Your task to perform on an android device: turn on notifications settings in the gmail app Image 0: 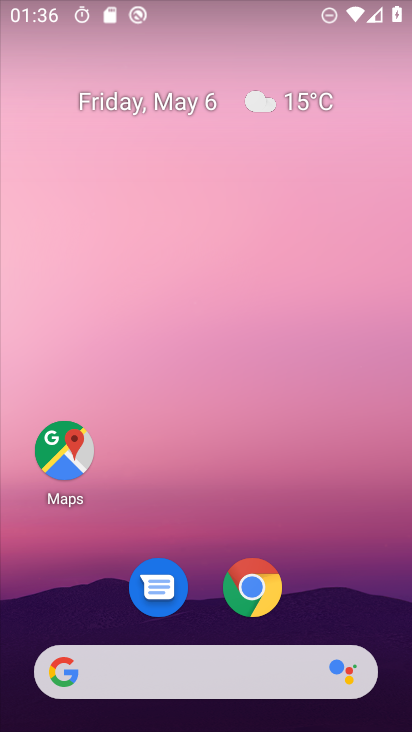
Step 0: drag from (395, 523) to (411, 193)
Your task to perform on an android device: turn on notifications settings in the gmail app Image 1: 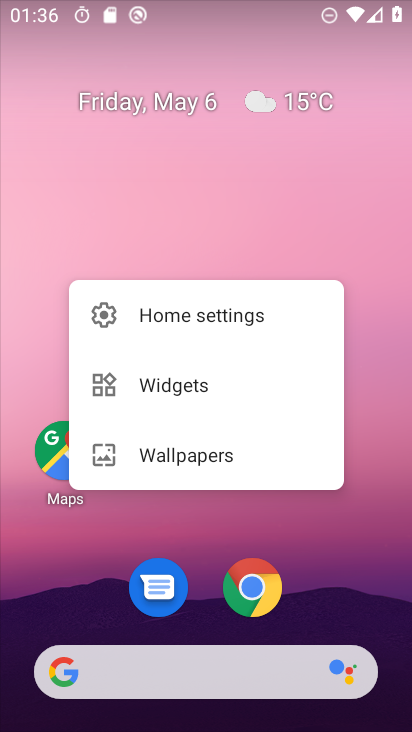
Step 1: click (394, 601)
Your task to perform on an android device: turn on notifications settings in the gmail app Image 2: 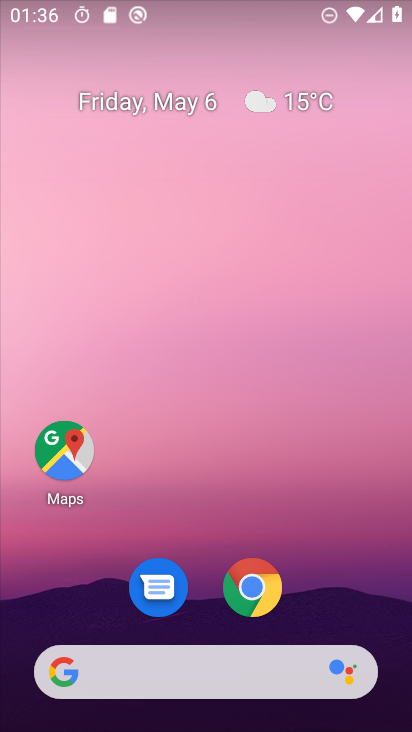
Step 2: drag from (401, 681) to (404, 286)
Your task to perform on an android device: turn on notifications settings in the gmail app Image 3: 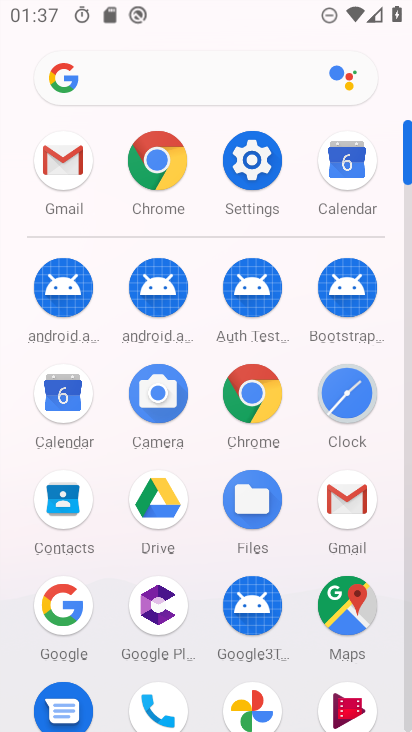
Step 3: click (336, 518)
Your task to perform on an android device: turn on notifications settings in the gmail app Image 4: 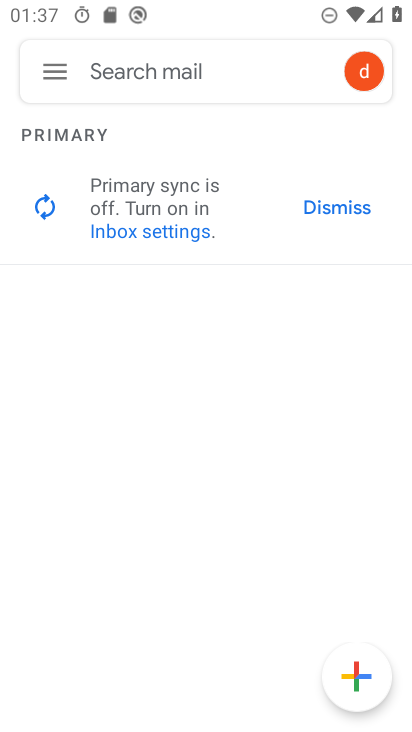
Step 4: click (44, 68)
Your task to perform on an android device: turn on notifications settings in the gmail app Image 5: 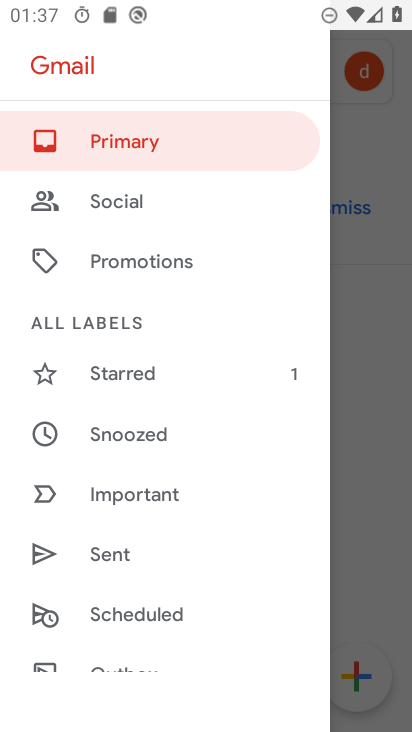
Step 5: drag from (254, 641) to (265, 370)
Your task to perform on an android device: turn on notifications settings in the gmail app Image 6: 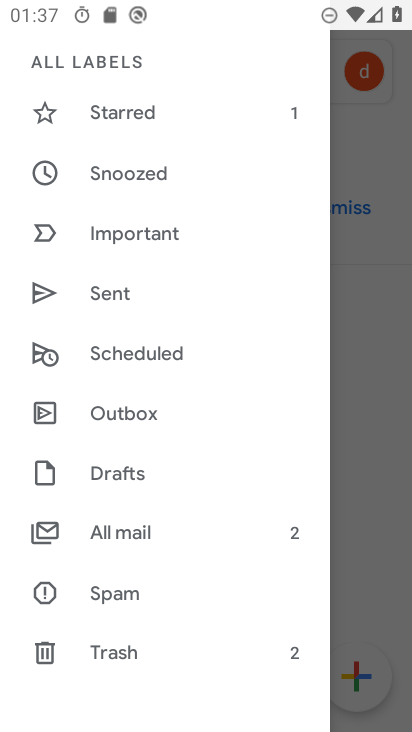
Step 6: drag from (259, 241) to (258, 659)
Your task to perform on an android device: turn on notifications settings in the gmail app Image 7: 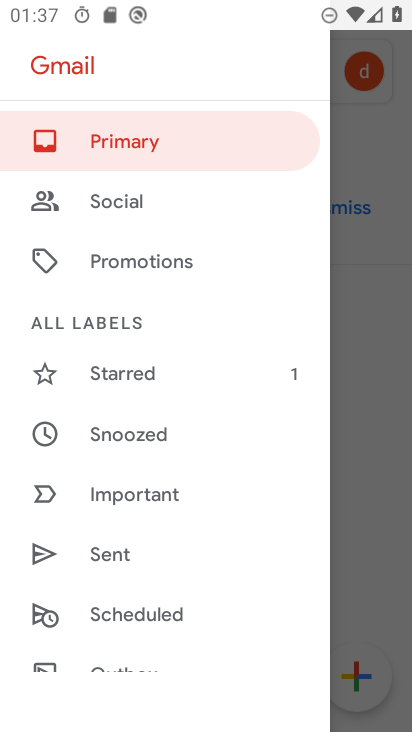
Step 7: drag from (215, 601) to (254, 353)
Your task to perform on an android device: turn on notifications settings in the gmail app Image 8: 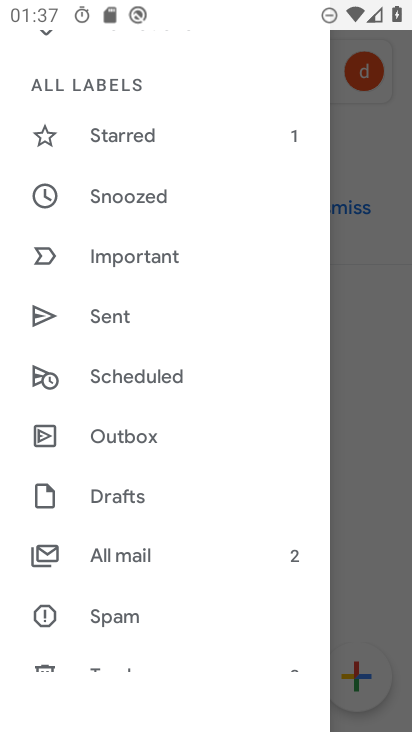
Step 8: drag from (264, 487) to (275, 379)
Your task to perform on an android device: turn on notifications settings in the gmail app Image 9: 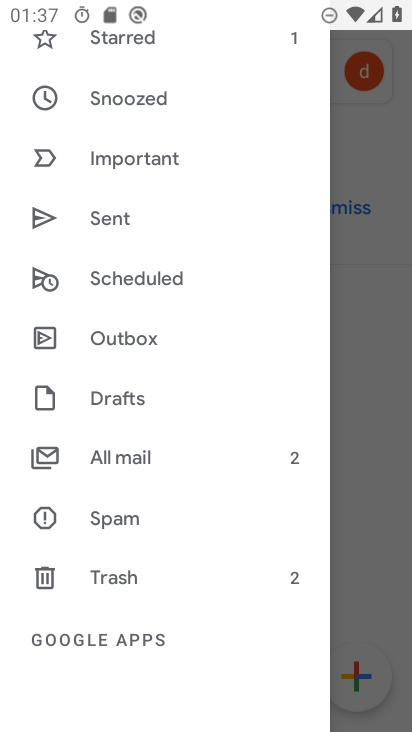
Step 9: drag from (200, 562) to (232, 303)
Your task to perform on an android device: turn on notifications settings in the gmail app Image 10: 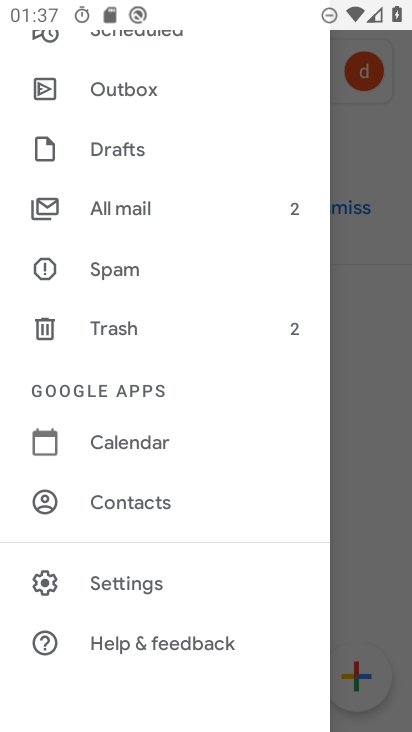
Step 10: click (119, 572)
Your task to perform on an android device: turn on notifications settings in the gmail app Image 11: 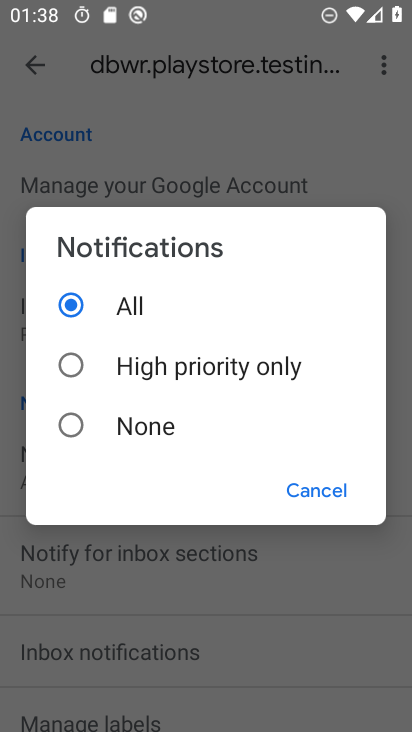
Step 11: click (310, 488)
Your task to perform on an android device: turn on notifications settings in the gmail app Image 12: 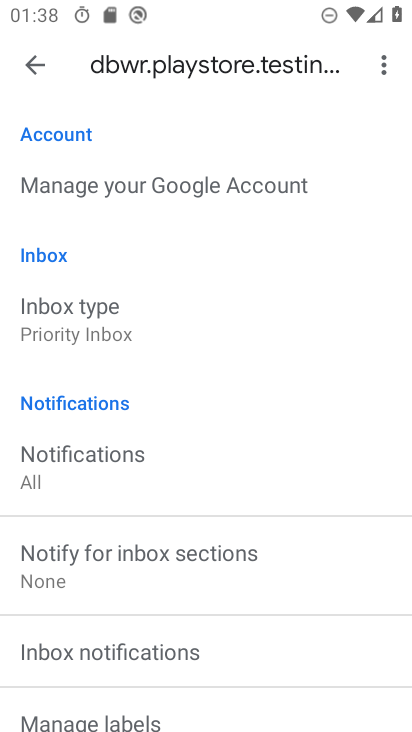
Step 12: task complete